Your task to perform on an android device: Show me popular videos on Youtube Image 0: 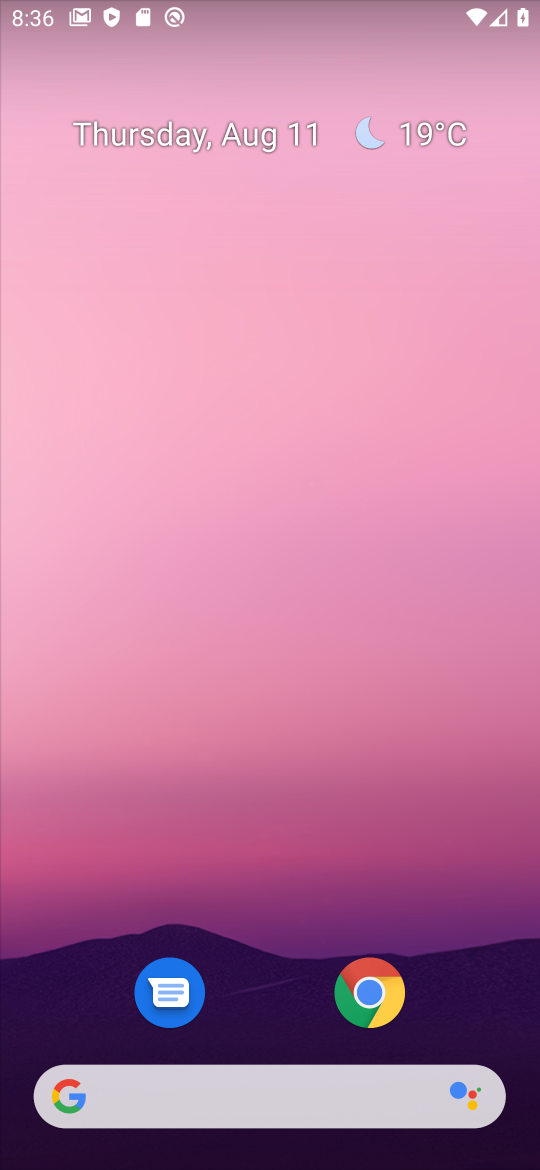
Step 0: drag from (306, 1005) to (250, 64)
Your task to perform on an android device: Show me popular videos on Youtube Image 1: 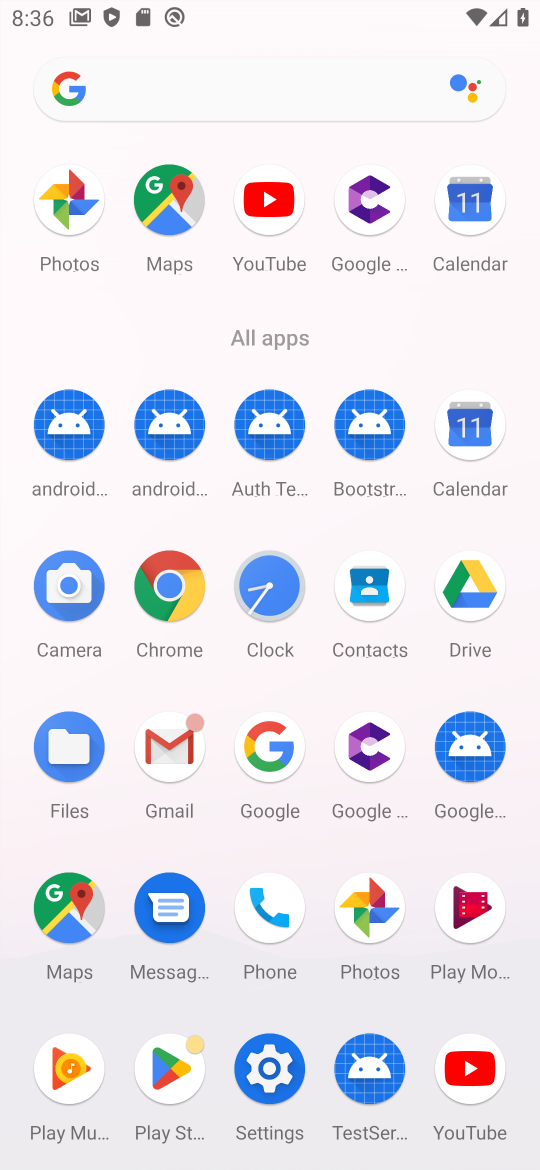
Step 1: click (476, 1064)
Your task to perform on an android device: Show me popular videos on Youtube Image 2: 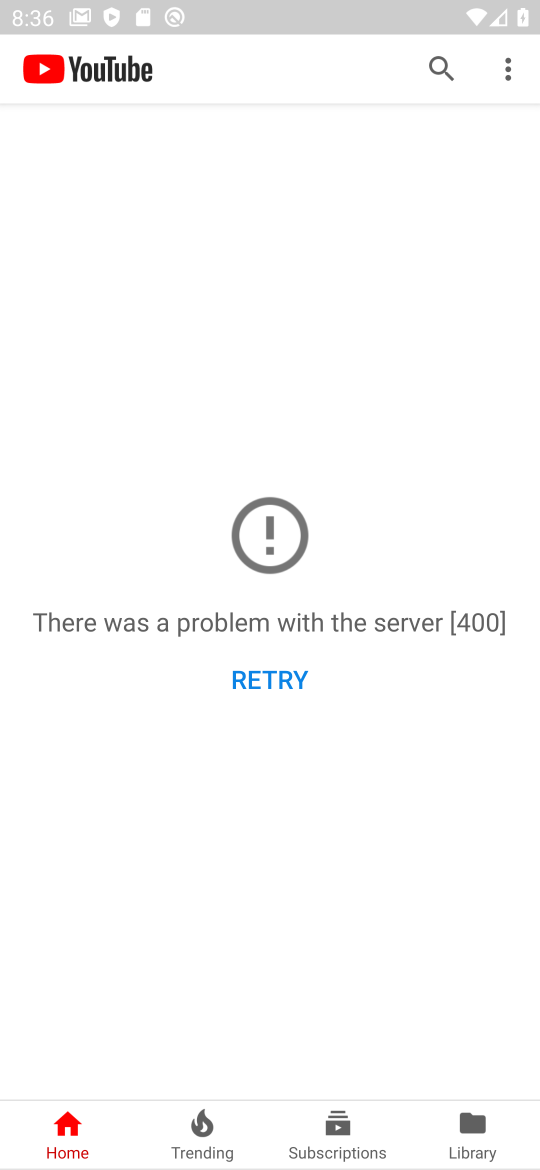
Step 2: task complete